Your task to perform on an android device: turn off airplane mode Image 0: 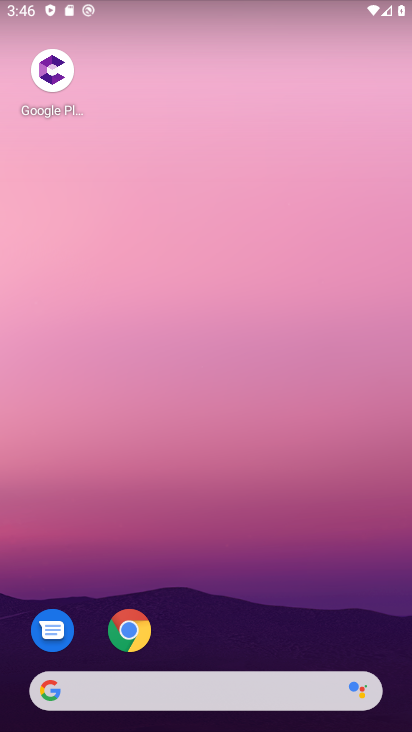
Step 0: press home button
Your task to perform on an android device: turn off airplane mode Image 1: 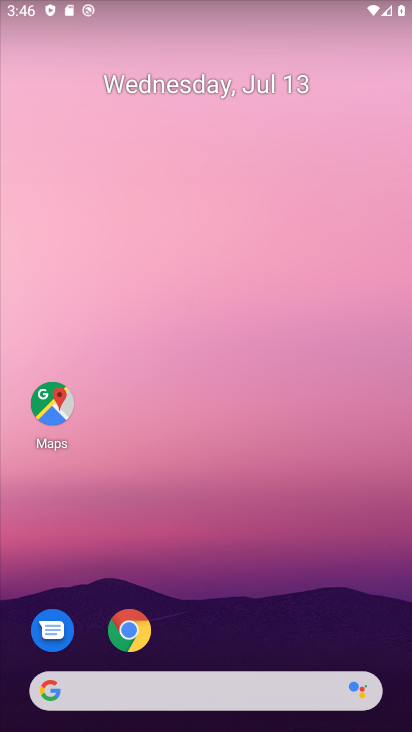
Step 1: task complete